Your task to perform on an android device: change keyboard looks Image 0: 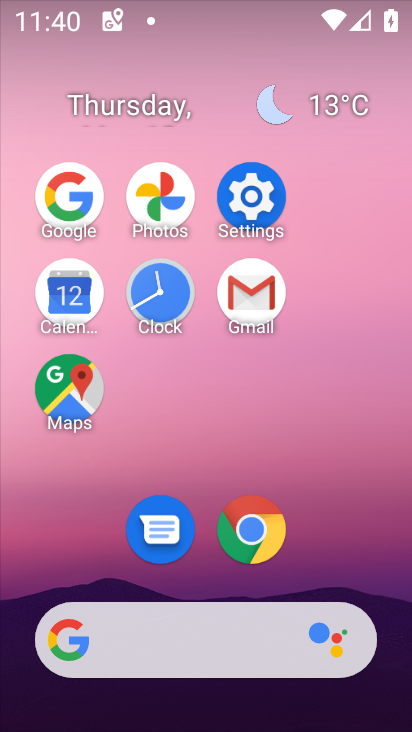
Step 0: click (246, 187)
Your task to perform on an android device: change keyboard looks Image 1: 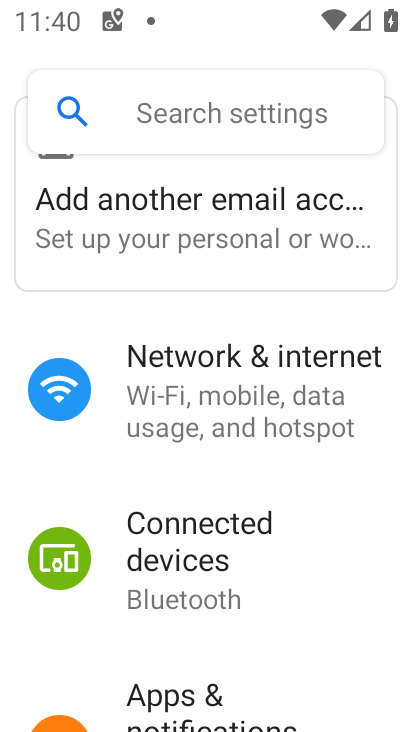
Step 1: drag from (310, 567) to (325, 112)
Your task to perform on an android device: change keyboard looks Image 2: 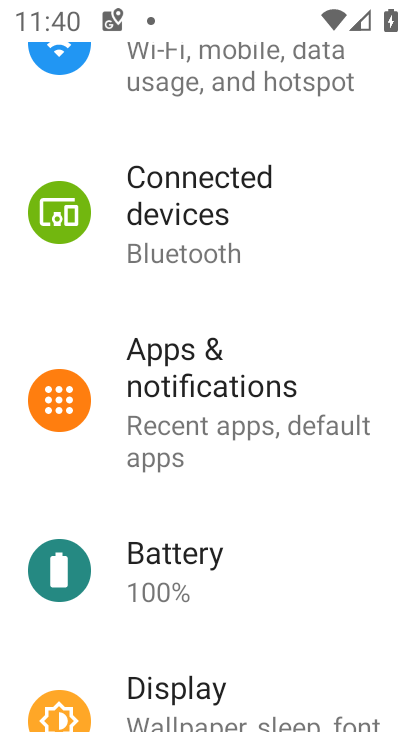
Step 2: drag from (271, 658) to (326, 163)
Your task to perform on an android device: change keyboard looks Image 3: 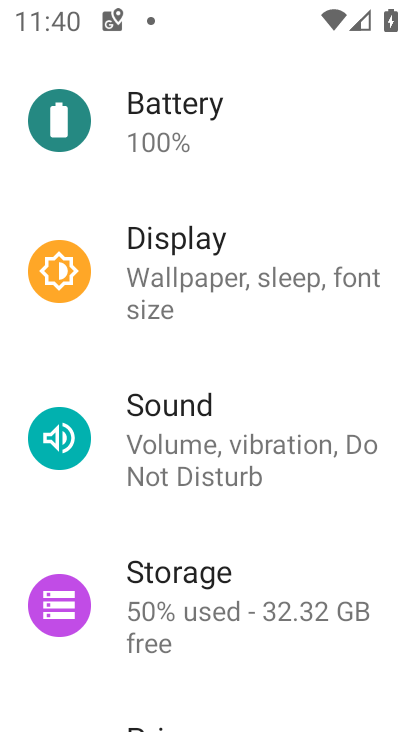
Step 3: drag from (251, 622) to (291, 221)
Your task to perform on an android device: change keyboard looks Image 4: 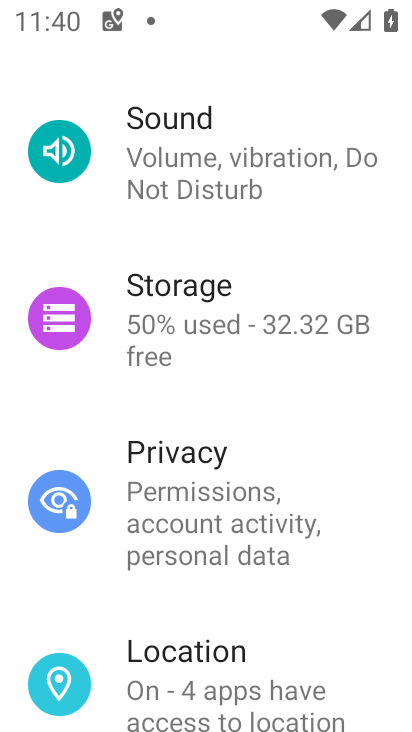
Step 4: drag from (308, 626) to (313, 212)
Your task to perform on an android device: change keyboard looks Image 5: 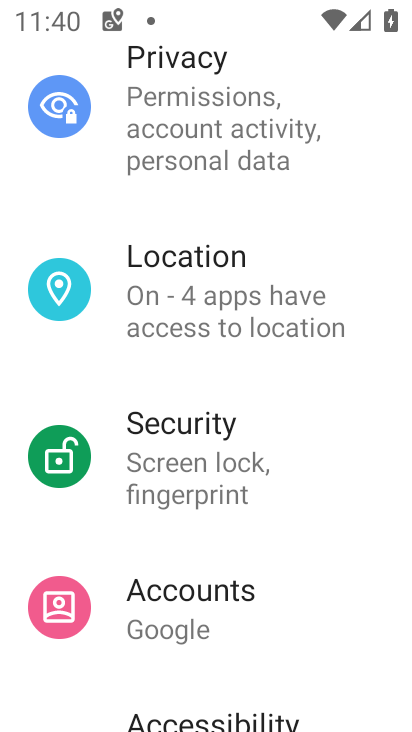
Step 5: drag from (264, 662) to (286, 252)
Your task to perform on an android device: change keyboard looks Image 6: 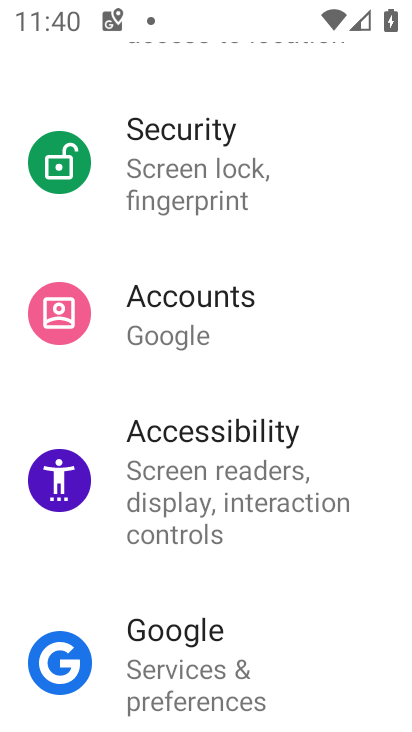
Step 6: drag from (318, 592) to (341, 273)
Your task to perform on an android device: change keyboard looks Image 7: 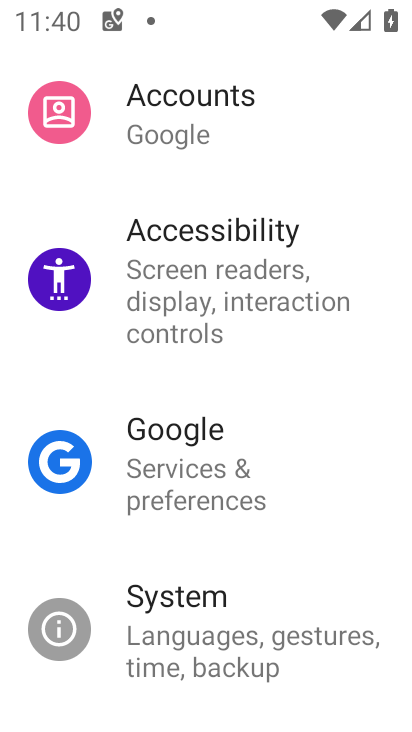
Step 7: click (275, 593)
Your task to perform on an android device: change keyboard looks Image 8: 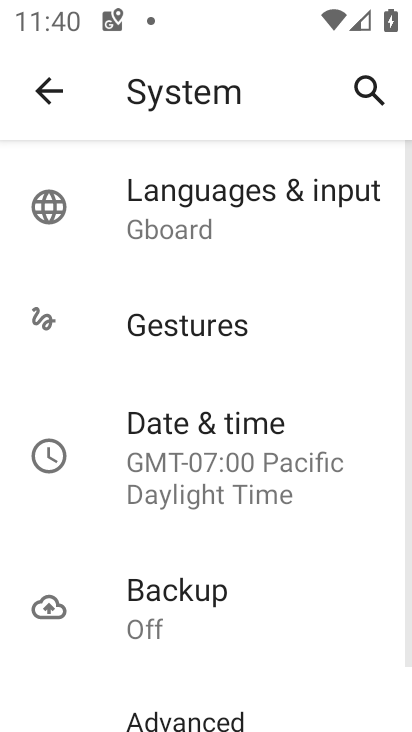
Step 8: click (267, 221)
Your task to perform on an android device: change keyboard looks Image 9: 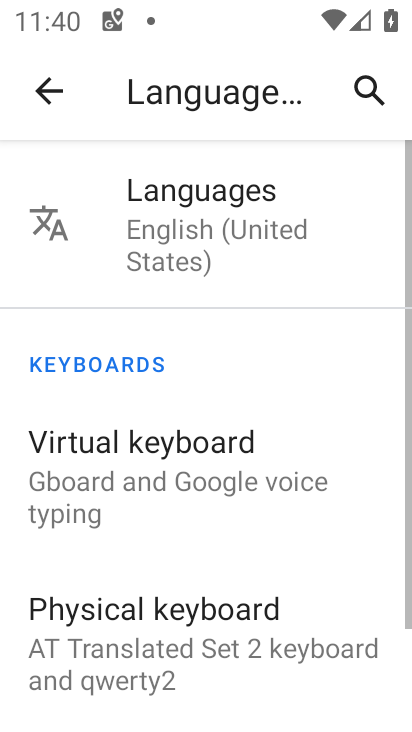
Step 9: click (215, 453)
Your task to perform on an android device: change keyboard looks Image 10: 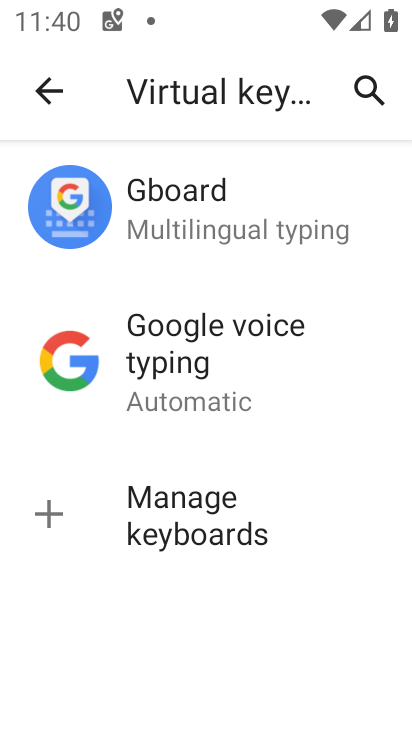
Step 10: click (214, 235)
Your task to perform on an android device: change keyboard looks Image 11: 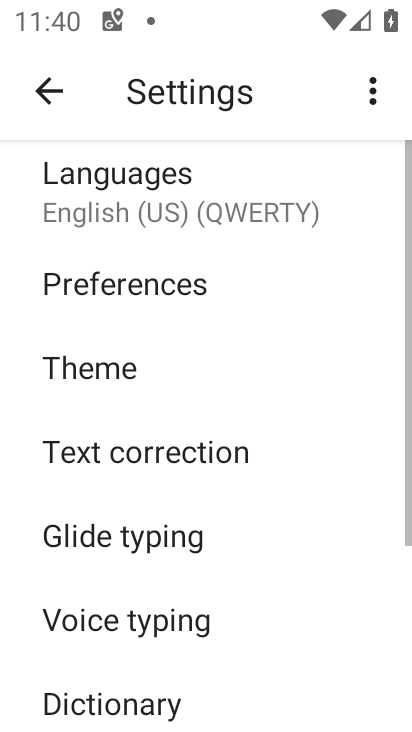
Step 11: click (72, 373)
Your task to perform on an android device: change keyboard looks Image 12: 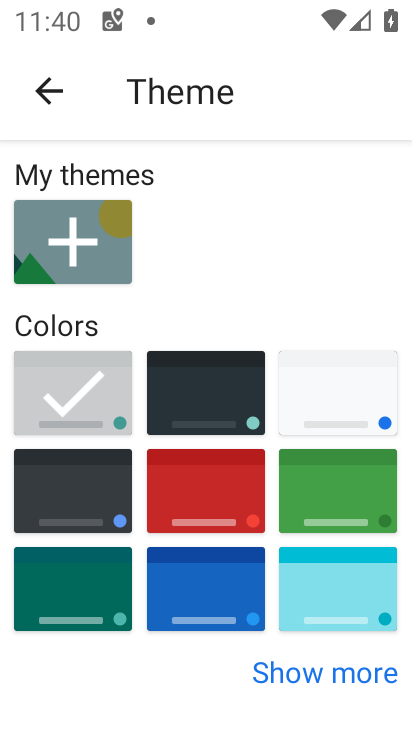
Step 12: click (253, 430)
Your task to perform on an android device: change keyboard looks Image 13: 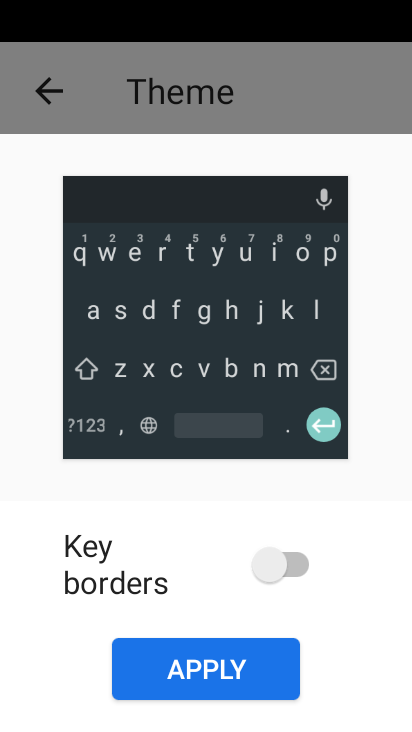
Step 13: click (255, 558)
Your task to perform on an android device: change keyboard looks Image 14: 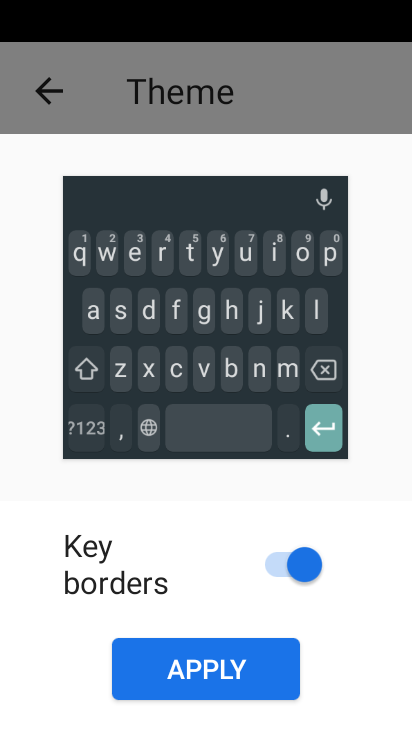
Step 14: click (222, 676)
Your task to perform on an android device: change keyboard looks Image 15: 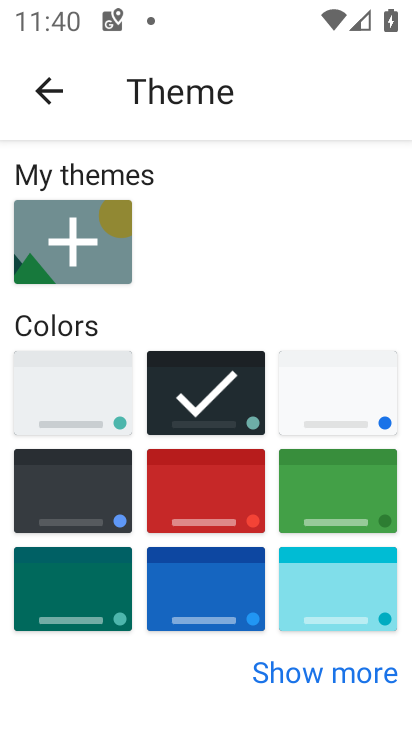
Step 15: task complete